Your task to perform on an android device: turn off javascript in the chrome app Image 0: 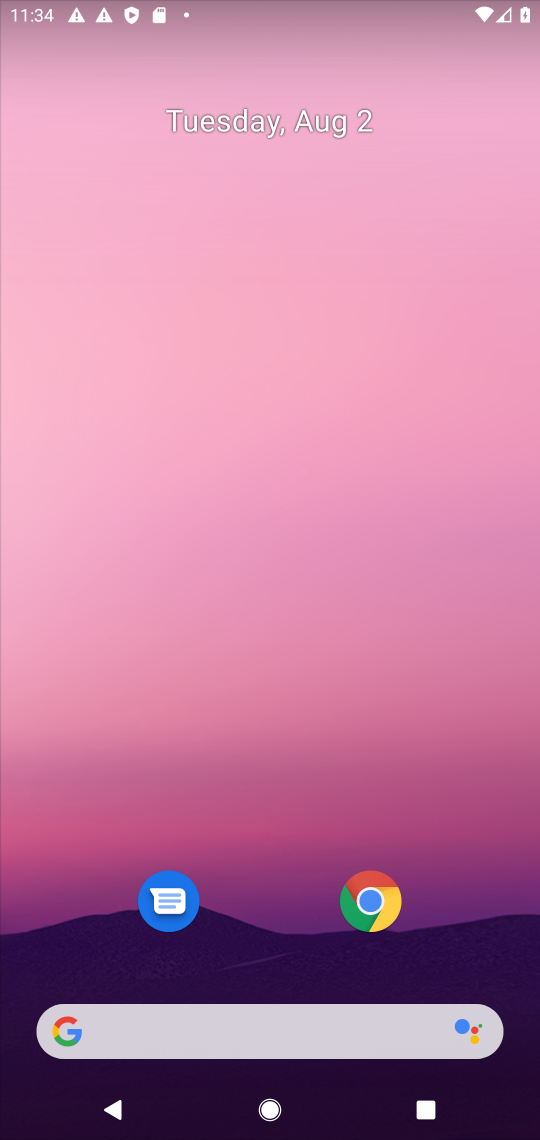
Step 0: click (368, 892)
Your task to perform on an android device: turn off javascript in the chrome app Image 1: 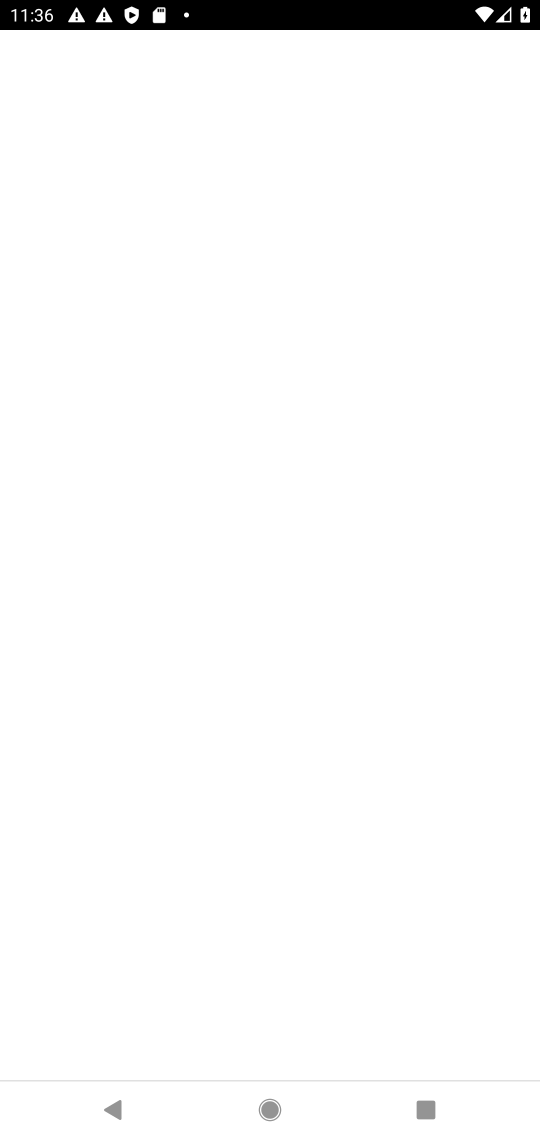
Step 1: task complete